Your task to perform on an android device: What's the weather? Image 0: 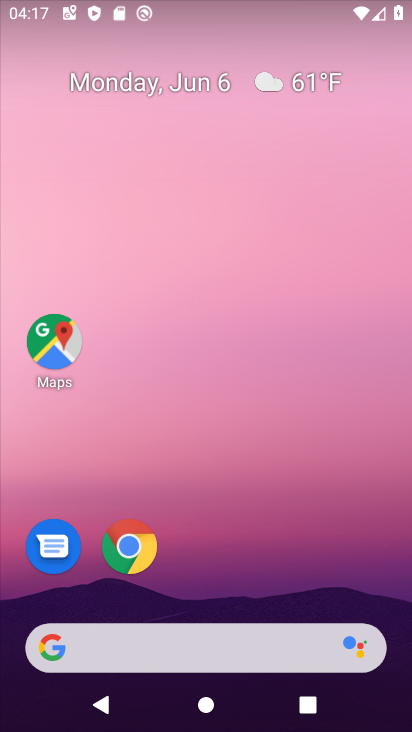
Step 0: press home button
Your task to perform on an android device: What's the weather? Image 1: 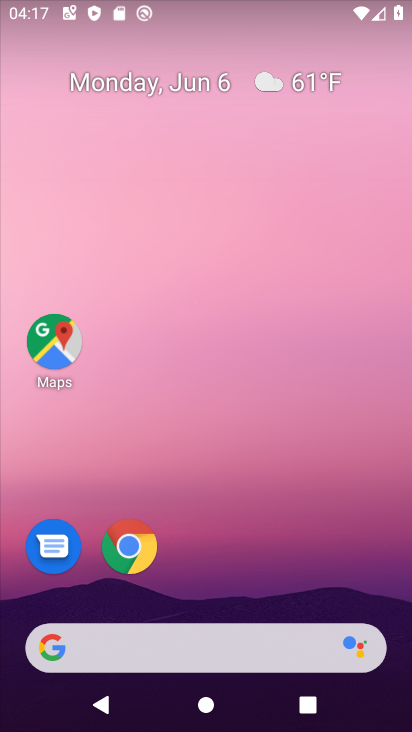
Step 1: click (53, 648)
Your task to perform on an android device: What's the weather? Image 2: 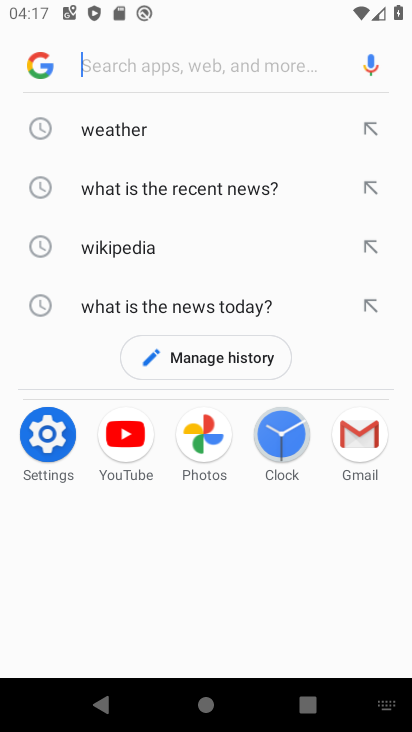
Step 2: click (115, 135)
Your task to perform on an android device: What's the weather? Image 3: 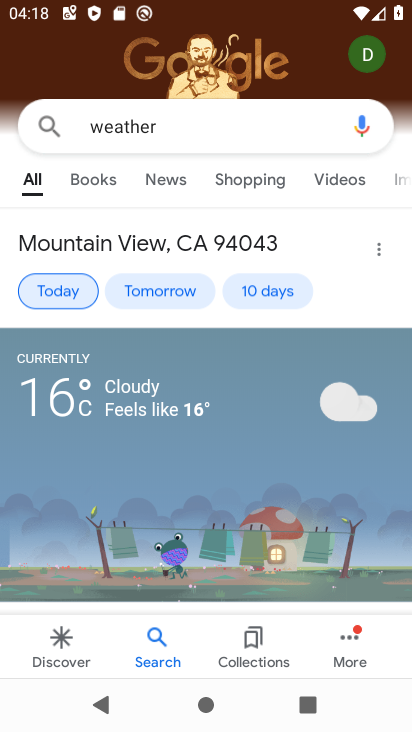
Step 3: task complete